Your task to perform on an android device: turn on showing notifications on the lock screen Image 0: 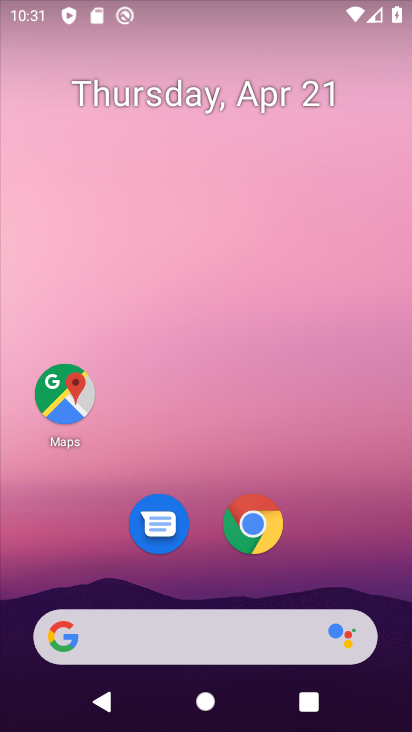
Step 0: drag from (350, 553) to (373, 55)
Your task to perform on an android device: turn on showing notifications on the lock screen Image 1: 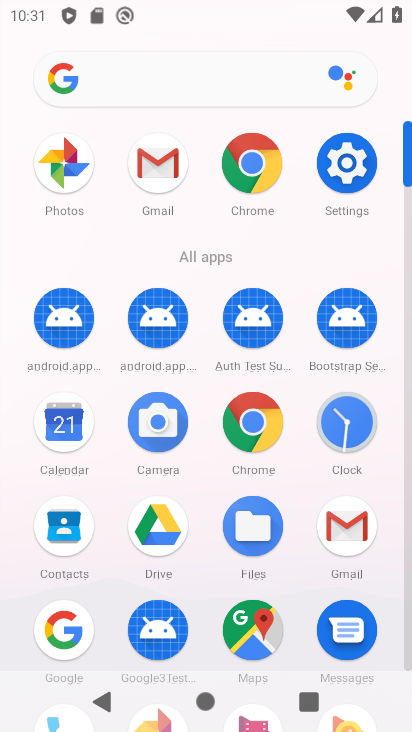
Step 1: click (352, 156)
Your task to perform on an android device: turn on showing notifications on the lock screen Image 2: 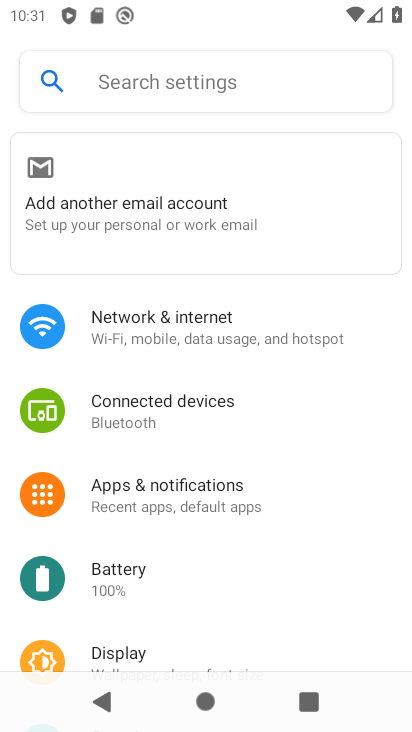
Step 2: click (184, 499)
Your task to perform on an android device: turn on showing notifications on the lock screen Image 3: 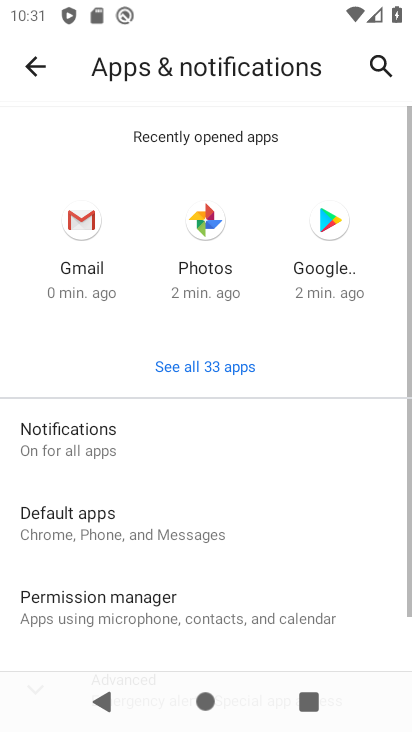
Step 3: click (133, 443)
Your task to perform on an android device: turn on showing notifications on the lock screen Image 4: 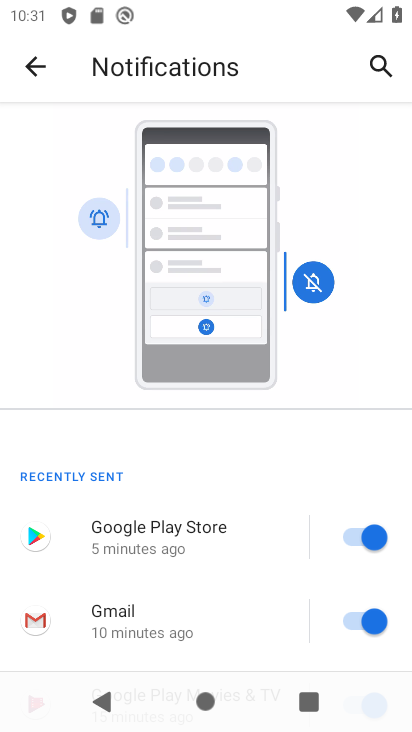
Step 4: drag from (222, 580) to (313, 141)
Your task to perform on an android device: turn on showing notifications on the lock screen Image 5: 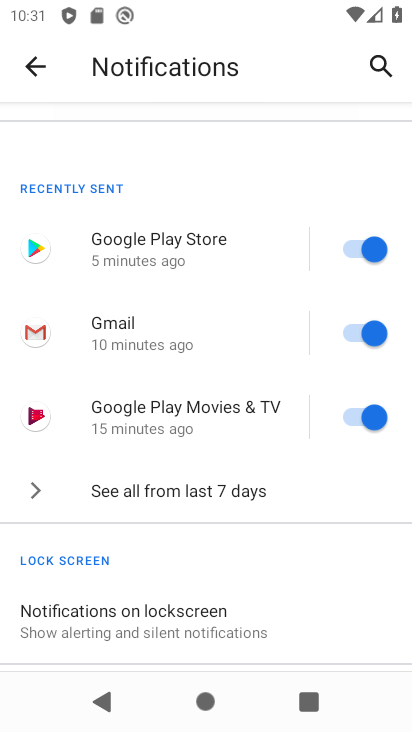
Step 5: click (174, 609)
Your task to perform on an android device: turn on showing notifications on the lock screen Image 6: 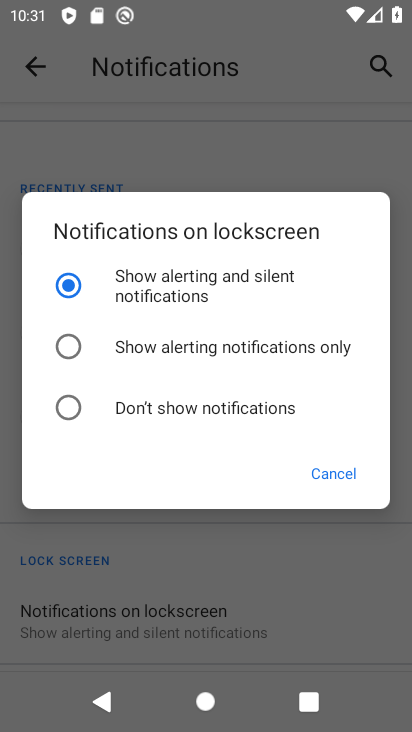
Step 6: click (334, 461)
Your task to perform on an android device: turn on showing notifications on the lock screen Image 7: 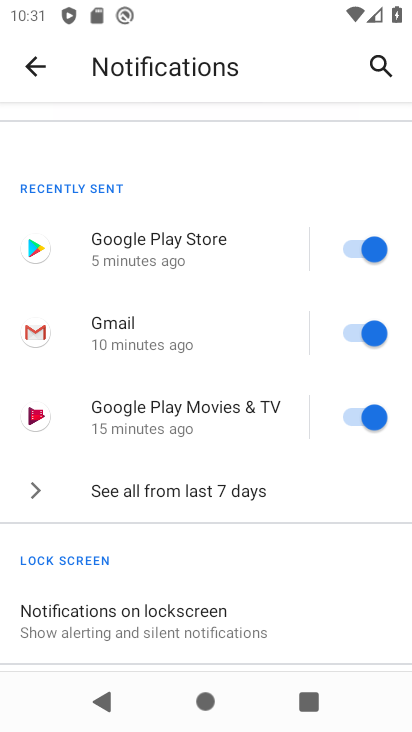
Step 7: task complete